Your task to perform on an android device: Open the web browser Image 0: 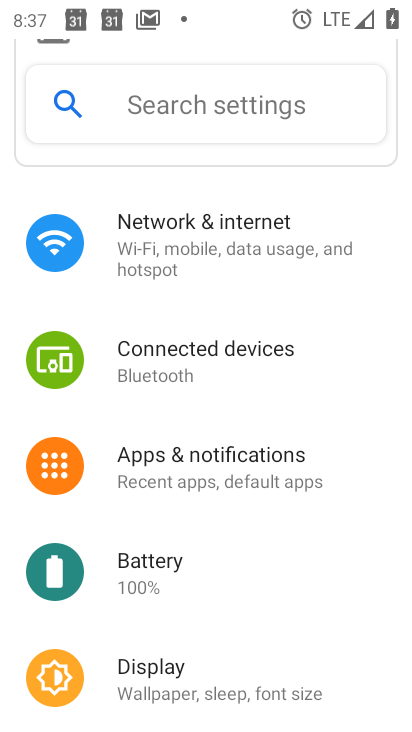
Step 0: press home button
Your task to perform on an android device: Open the web browser Image 1: 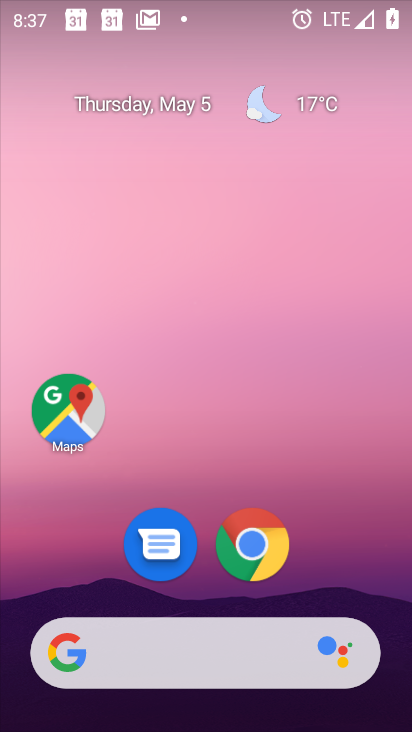
Step 1: click (251, 554)
Your task to perform on an android device: Open the web browser Image 2: 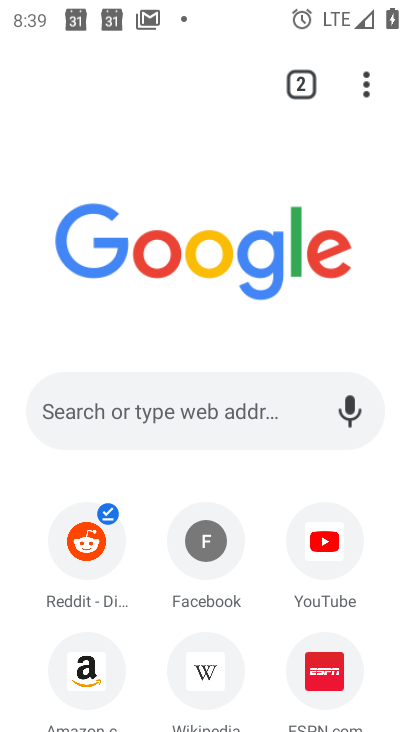
Step 2: task complete